Your task to perform on an android device: Go to Maps Image 0: 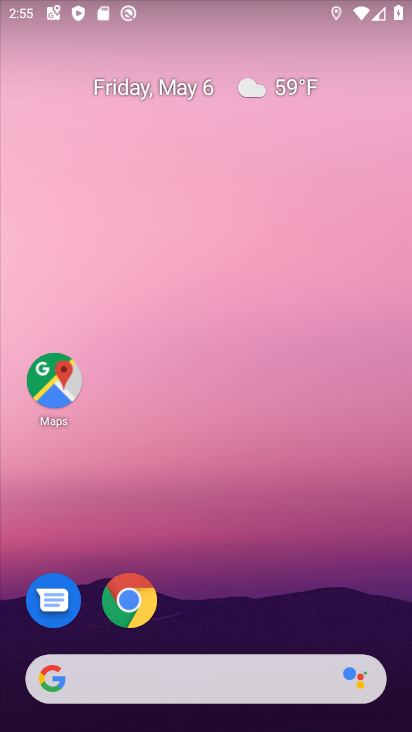
Step 0: click (54, 383)
Your task to perform on an android device: Go to Maps Image 1: 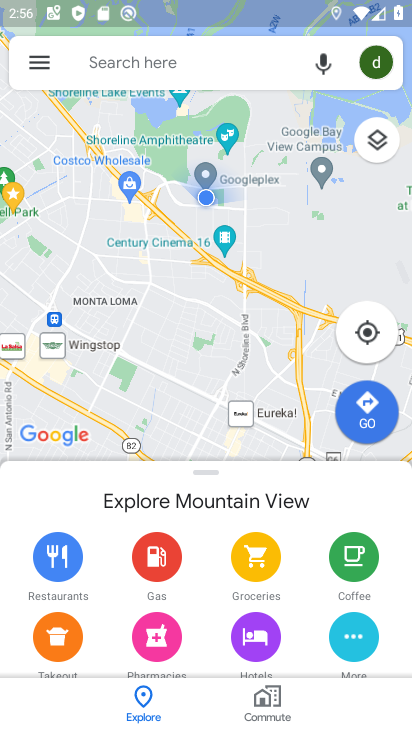
Step 1: task complete